Your task to perform on an android device: turn on translation in the chrome app Image 0: 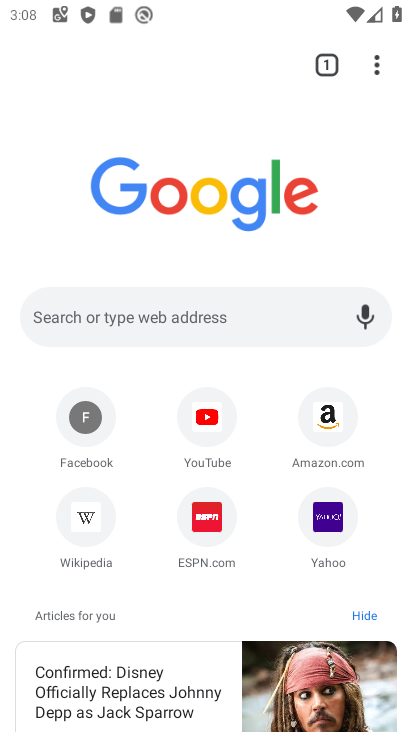
Step 0: click (374, 58)
Your task to perform on an android device: turn on translation in the chrome app Image 1: 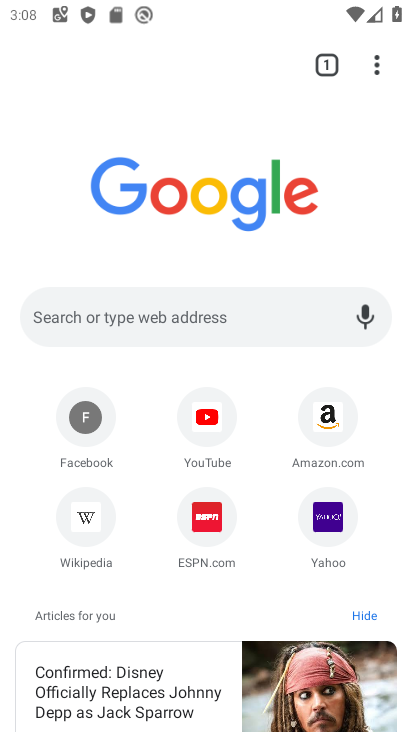
Step 1: drag from (369, 59) to (129, 560)
Your task to perform on an android device: turn on translation in the chrome app Image 2: 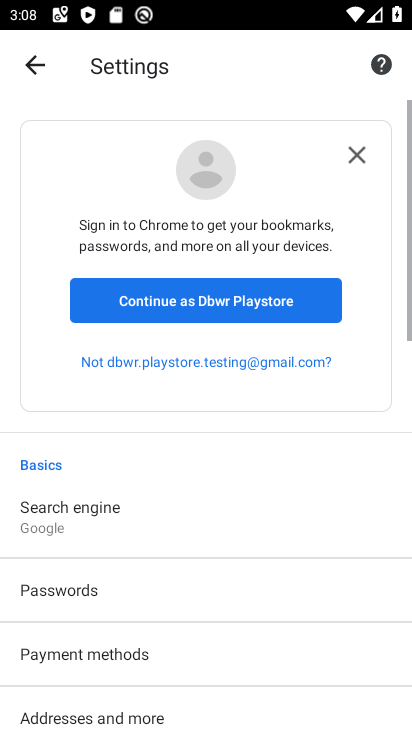
Step 2: drag from (194, 682) to (250, 41)
Your task to perform on an android device: turn on translation in the chrome app Image 3: 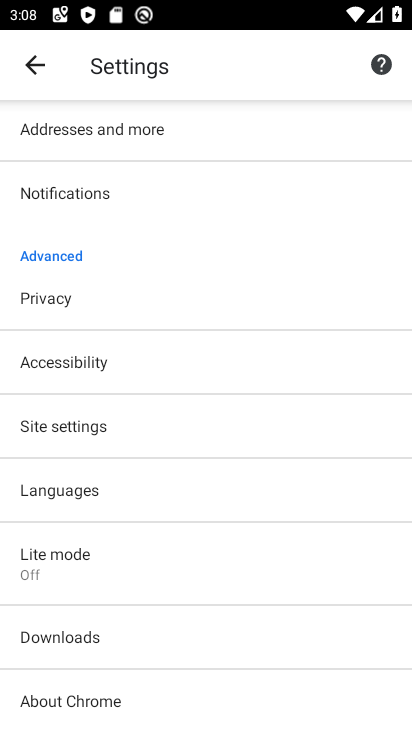
Step 3: click (45, 509)
Your task to perform on an android device: turn on translation in the chrome app Image 4: 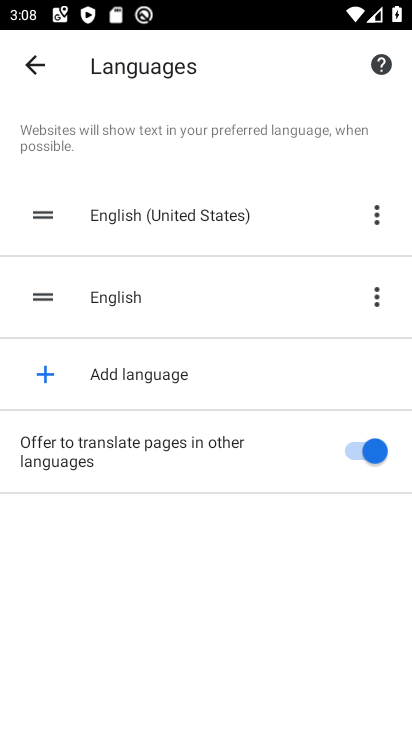
Step 4: task complete